Your task to perform on an android device: install app "Clock" Image 0: 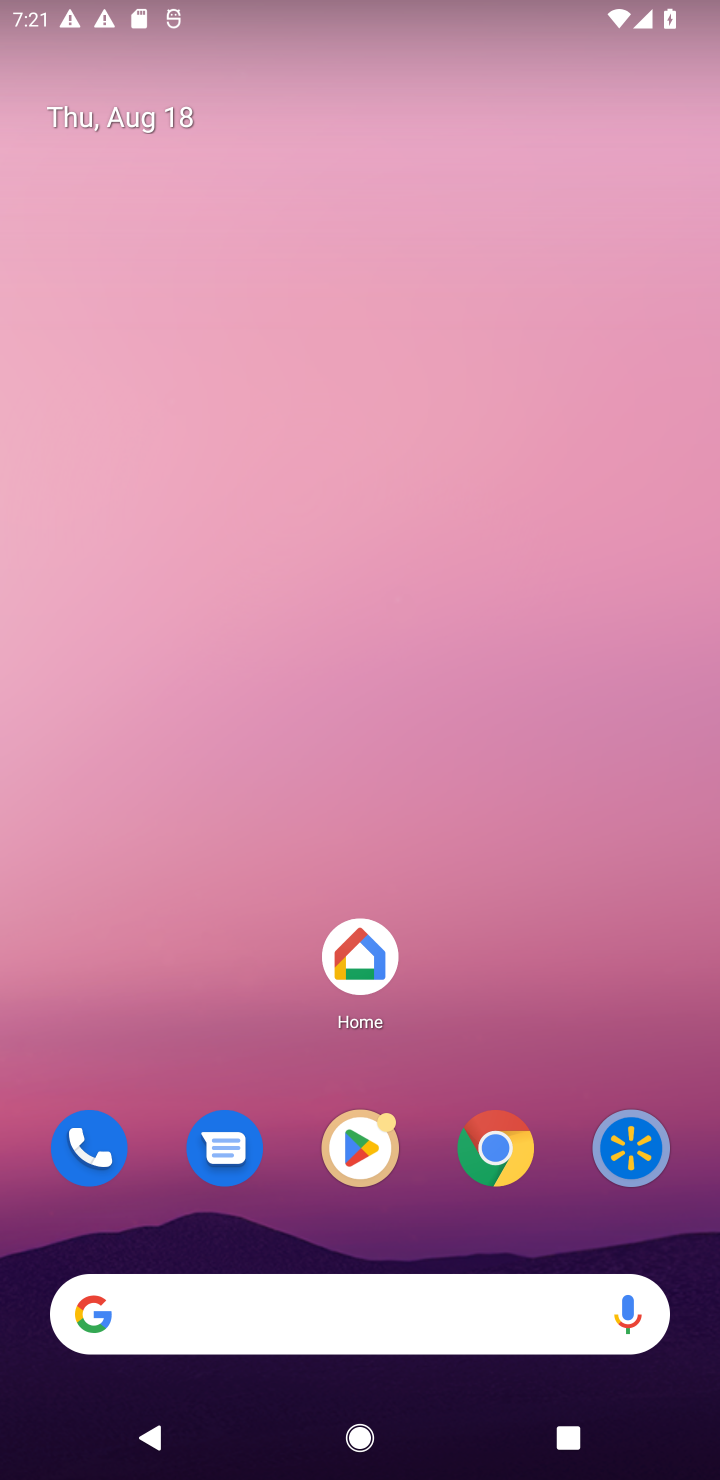
Step 0: drag from (302, 1192) to (0, 464)
Your task to perform on an android device: install app "Clock" Image 1: 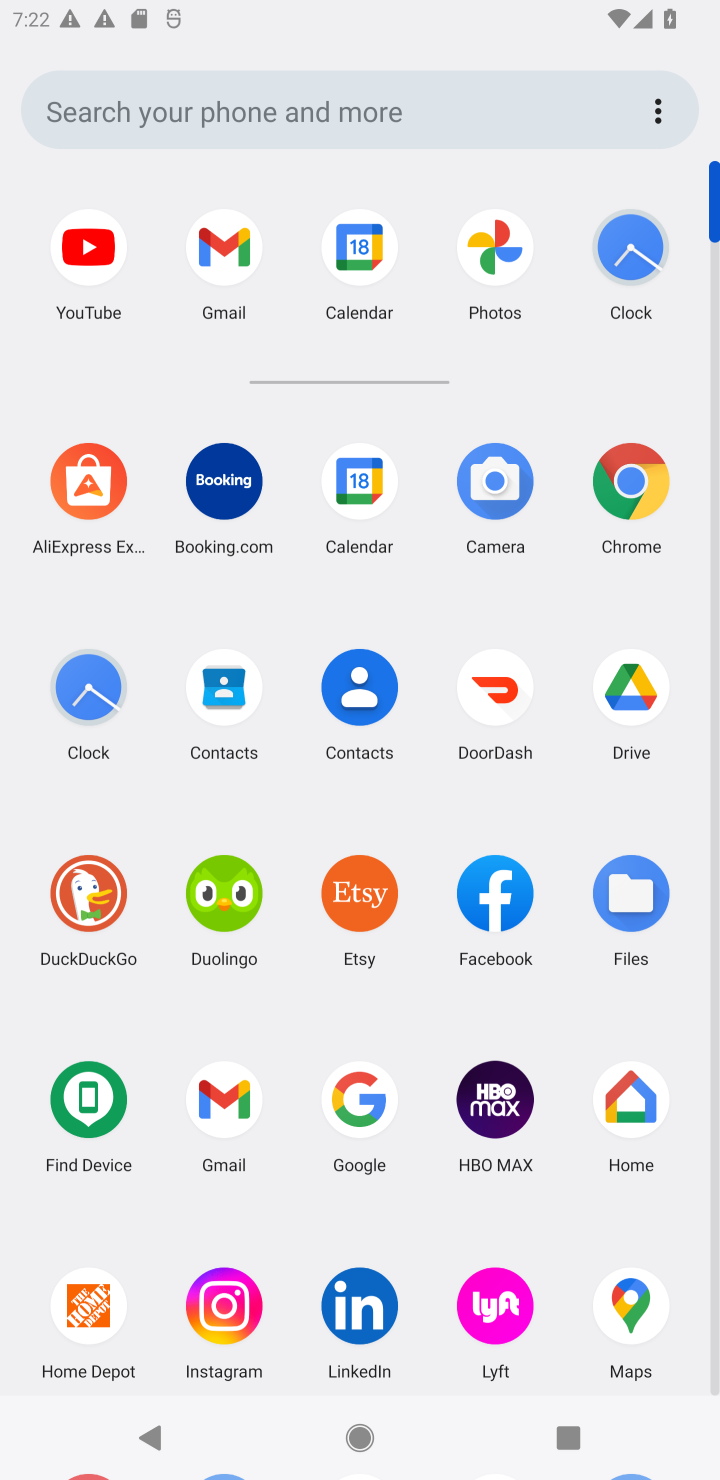
Step 1: click (612, 234)
Your task to perform on an android device: install app "Clock" Image 2: 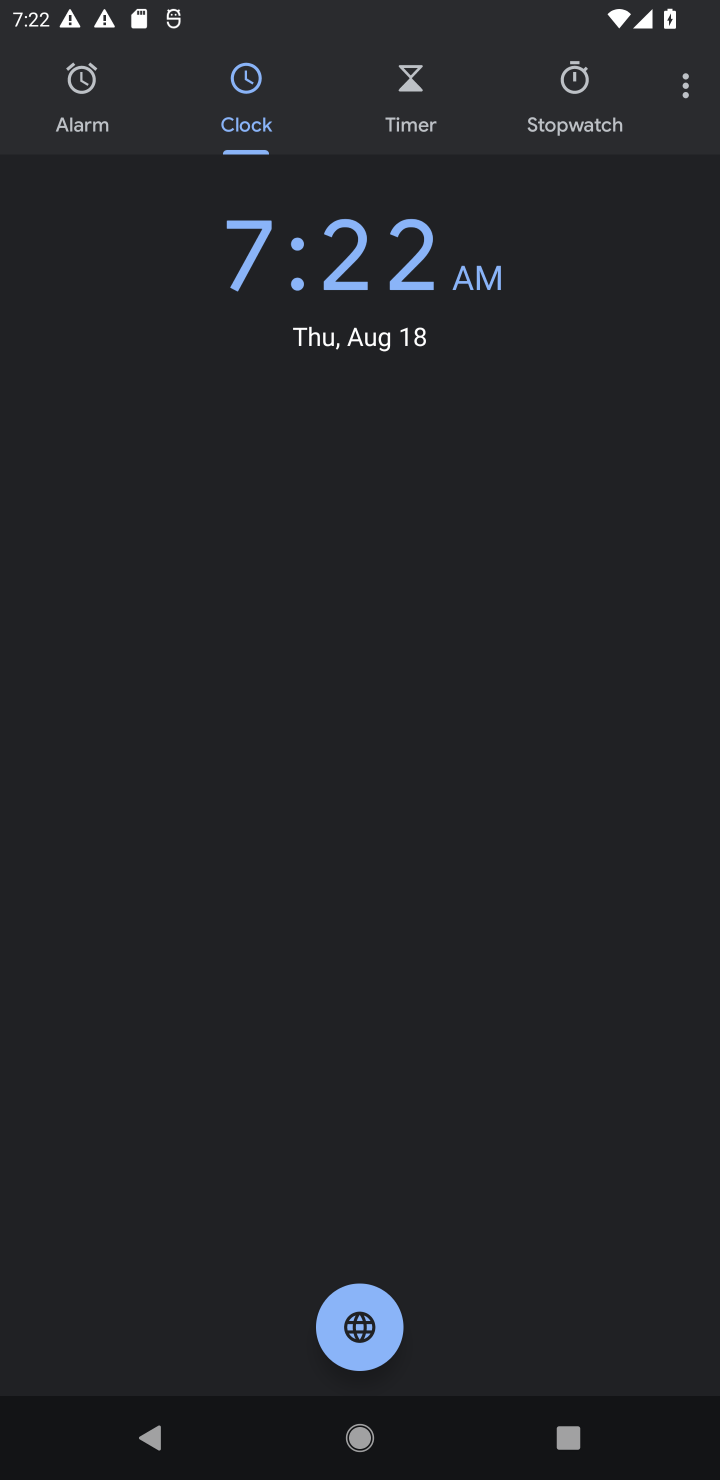
Step 2: task complete